Your task to perform on an android device: move a message to another label in the gmail app Image 0: 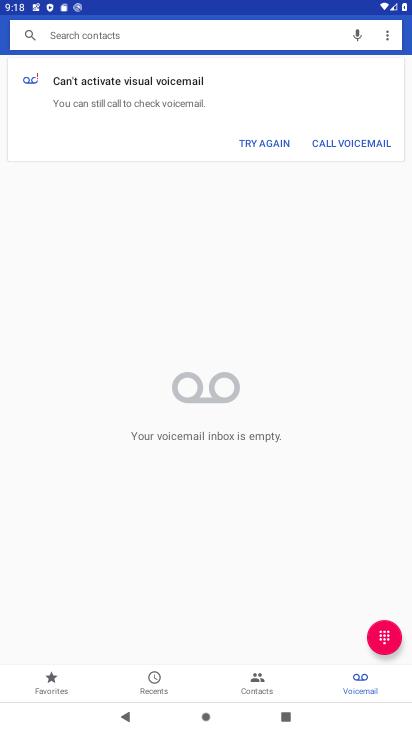
Step 0: press home button
Your task to perform on an android device: move a message to another label in the gmail app Image 1: 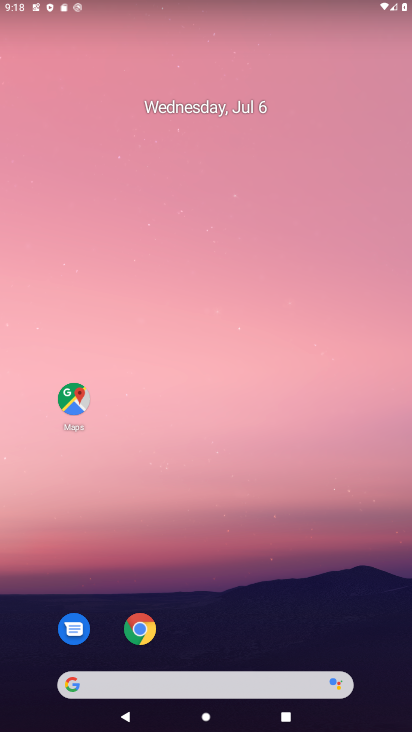
Step 1: drag from (262, 633) to (283, 34)
Your task to perform on an android device: move a message to another label in the gmail app Image 2: 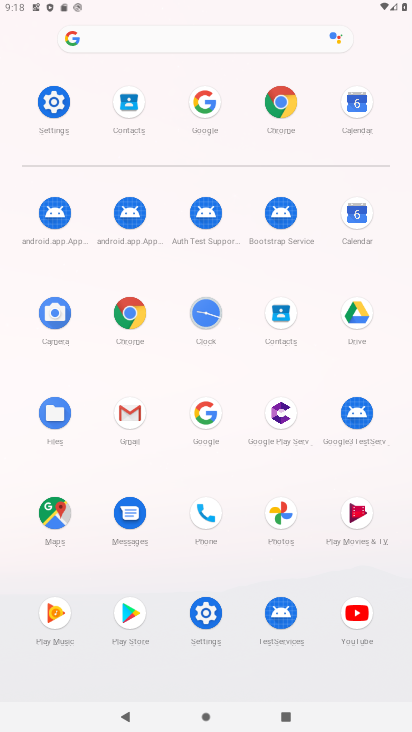
Step 2: click (131, 415)
Your task to perform on an android device: move a message to another label in the gmail app Image 3: 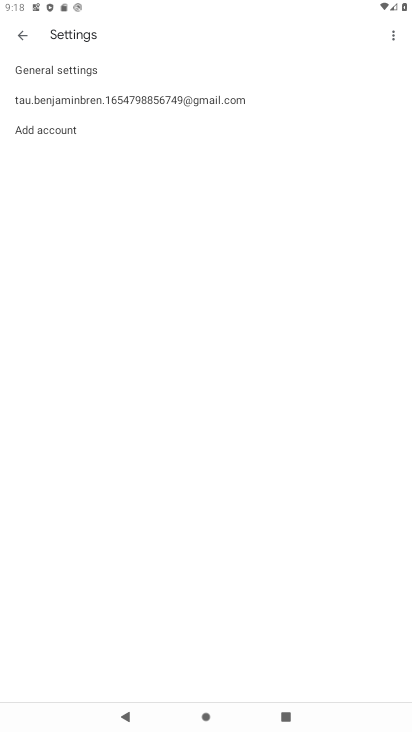
Step 3: press back button
Your task to perform on an android device: move a message to another label in the gmail app Image 4: 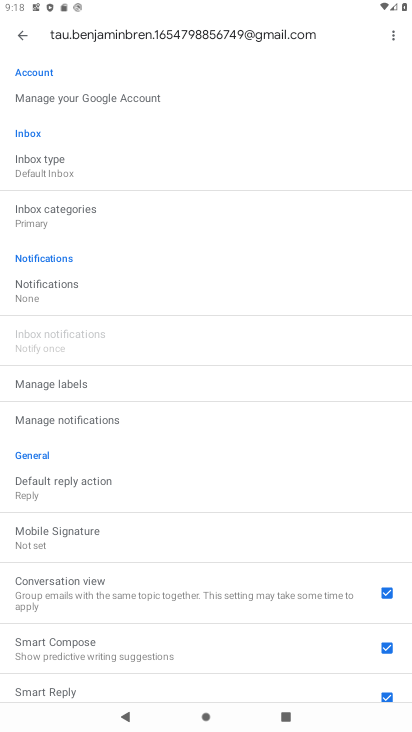
Step 4: press back button
Your task to perform on an android device: move a message to another label in the gmail app Image 5: 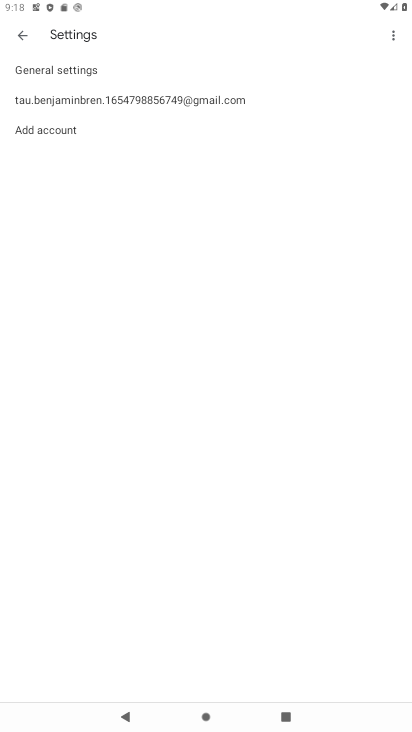
Step 5: press back button
Your task to perform on an android device: move a message to another label in the gmail app Image 6: 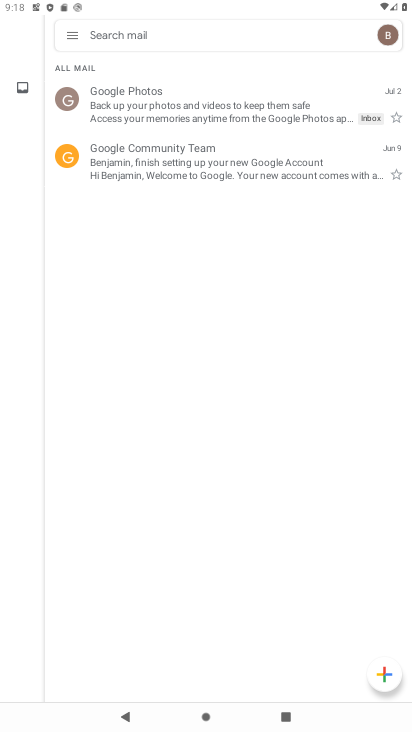
Step 6: click (270, 110)
Your task to perform on an android device: move a message to another label in the gmail app Image 7: 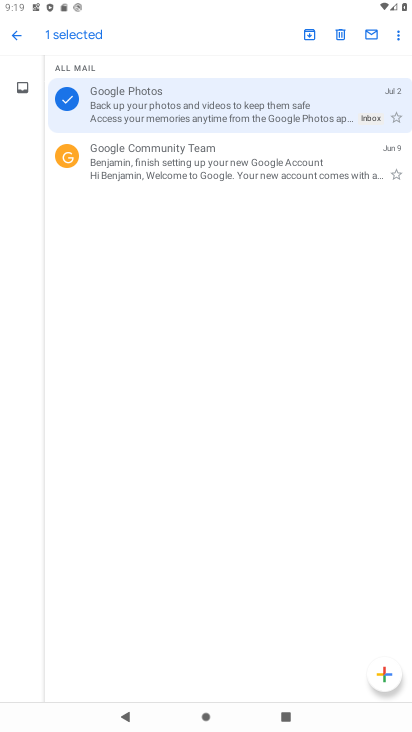
Step 7: click (170, 171)
Your task to perform on an android device: move a message to another label in the gmail app Image 8: 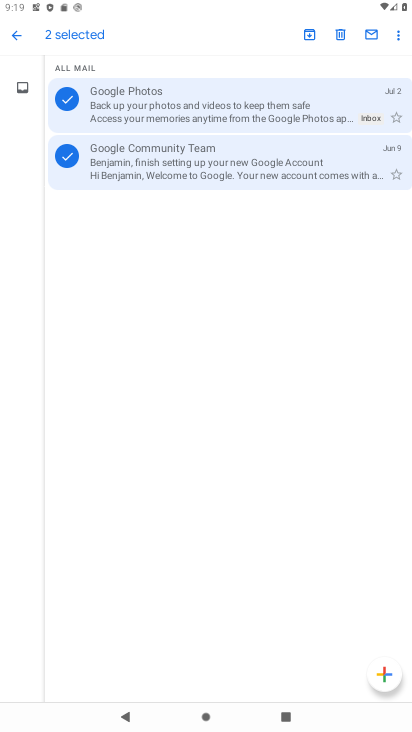
Step 8: click (68, 96)
Your task to perform on an android device: move a message to another label in the gmail app Image 9: 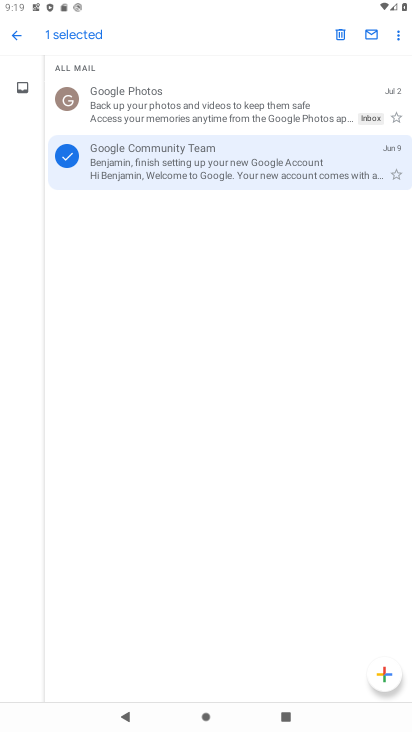
Step 9: click (392, 33)
Your task to perform on an android device: move a message to another label in the gmail app Image 10: 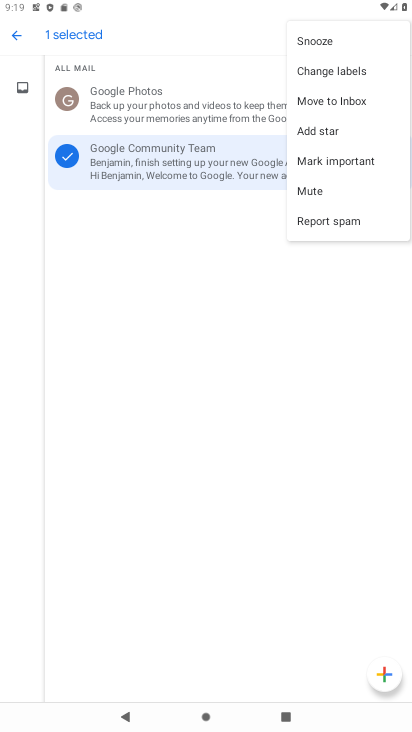
Step 10: click (322, 68)
Your task to perform on an android device: move a message to another label in the gmail app Image 11: 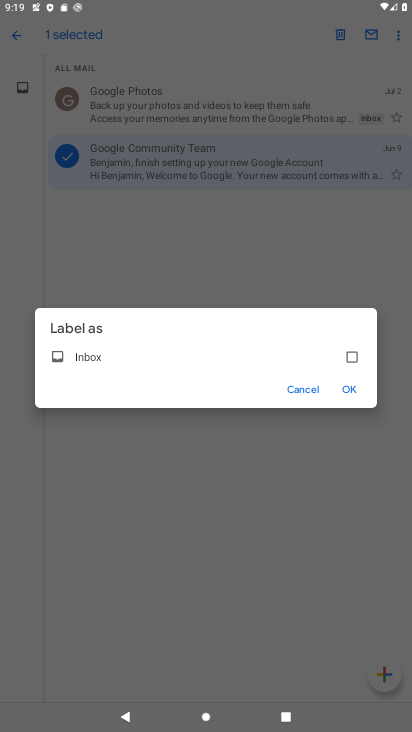
Step 11: click (347, 354)
Your task to perform on an android device: move a message to another label in the gmail app Image 12: 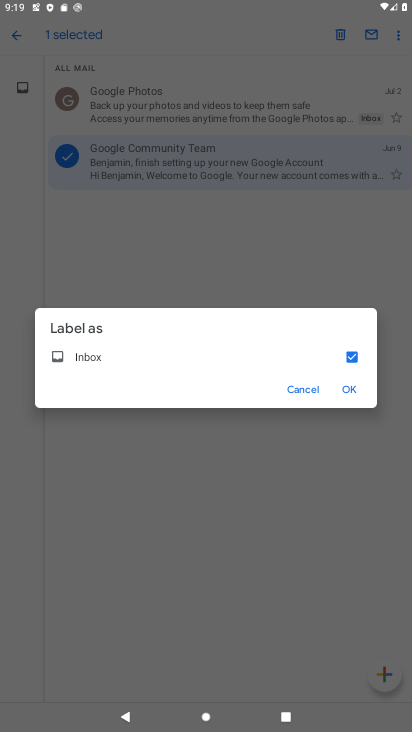
Step 12: click (352, 393)
Your task to perform on an android device: move a message to another label in the gmail app Image 13: 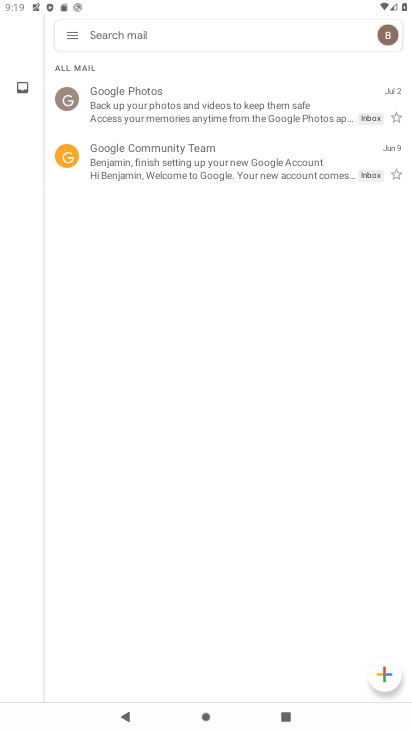
Step 13: task complete